Your task to perform on an android device: turn off location history Image 0: 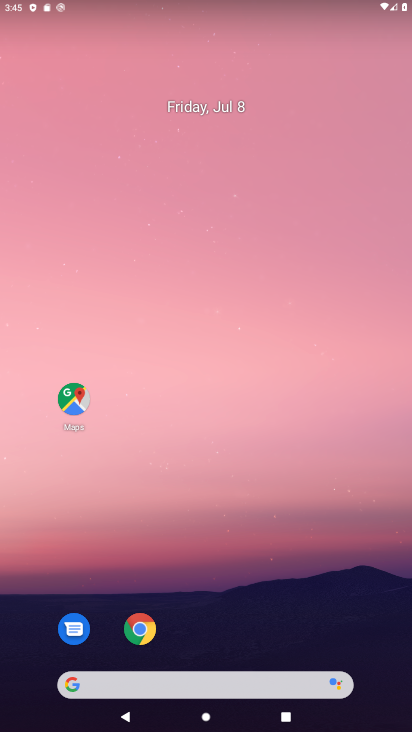
Step 0: drag from (194, 649) to (116, 51)
Your task to perform on an android device: turn off location history Image 1: 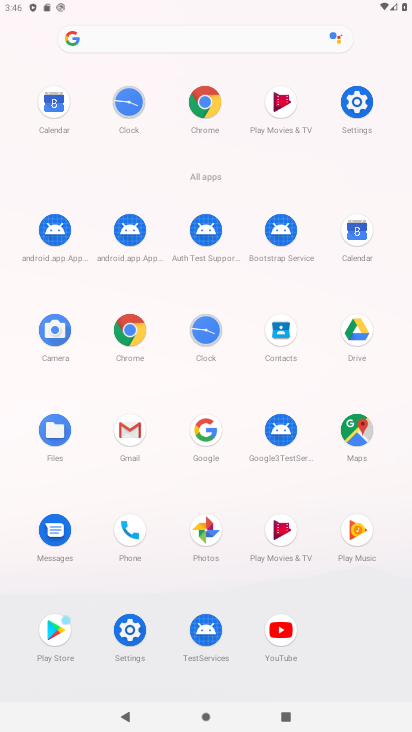
Step 1: click (134, 631)
Your task to perform on an android device: turn off location history Image 2: 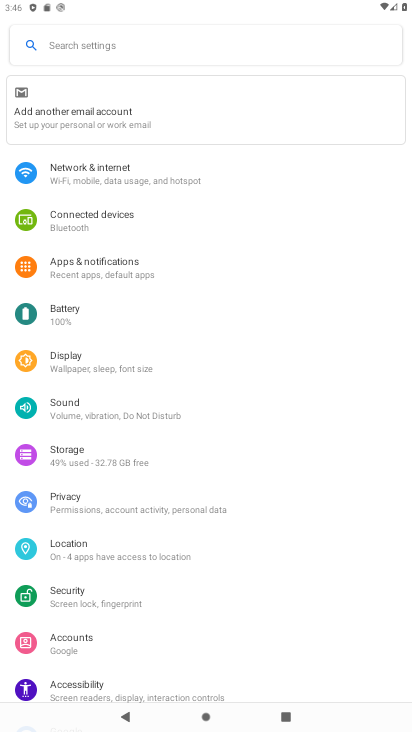
Step 2: click (181, 605)
Your task to perform on an android device: turn off location history Image 3: 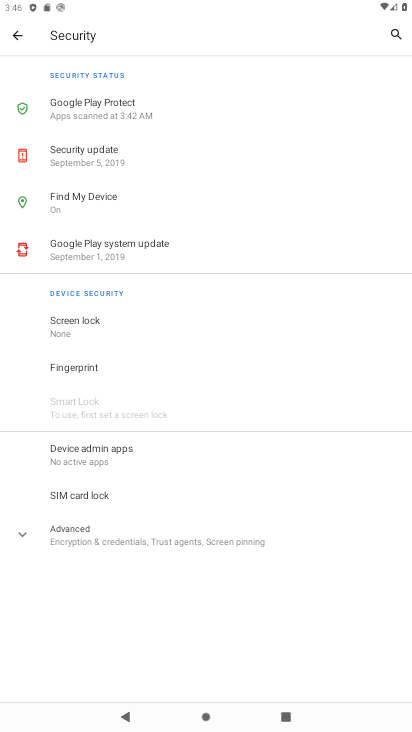
Step 3: click (21, 40)
Your task to perform on an android device: turn off location history Image 4: 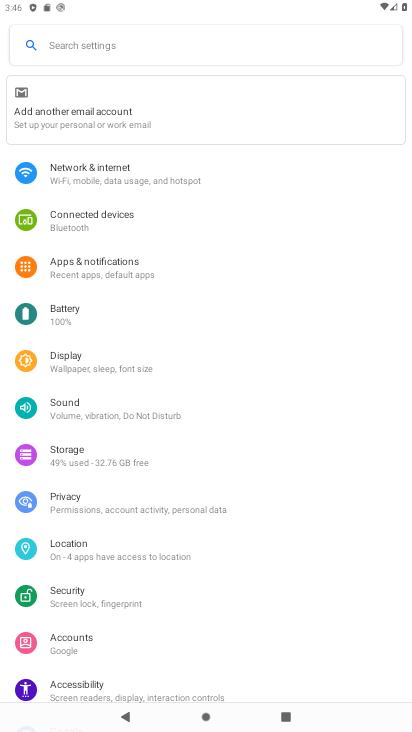
Step 4: click (101, 547)
Your task to perform on an android device: turn off location history Image 5: 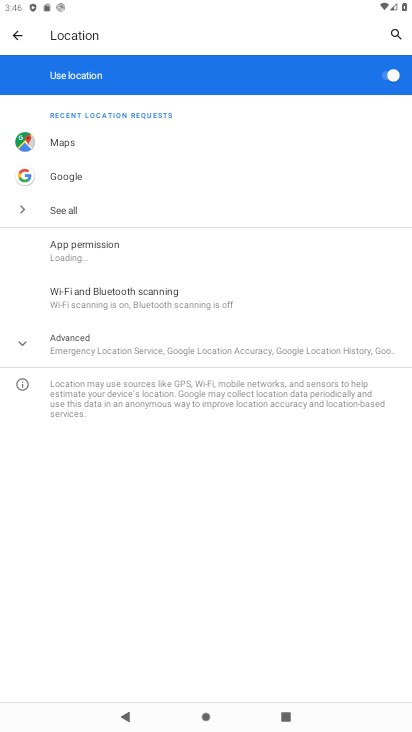
Step 5: click (66, 337)
Your task to perform on an android device: turn off location history Image 6: 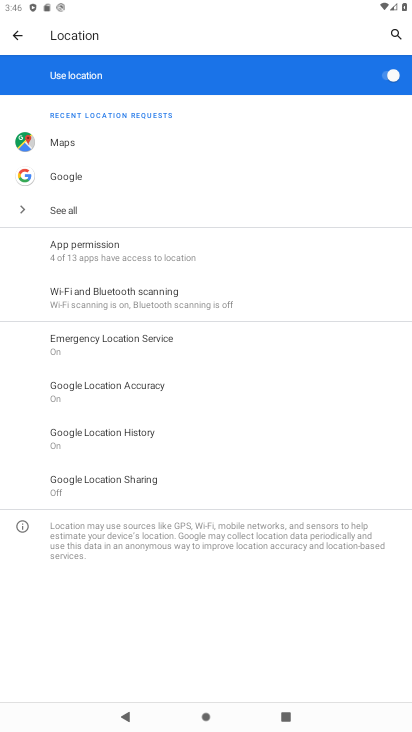
Step 6: task complete